Your task to perform on an android device: Is it going to rain today? Image 0: 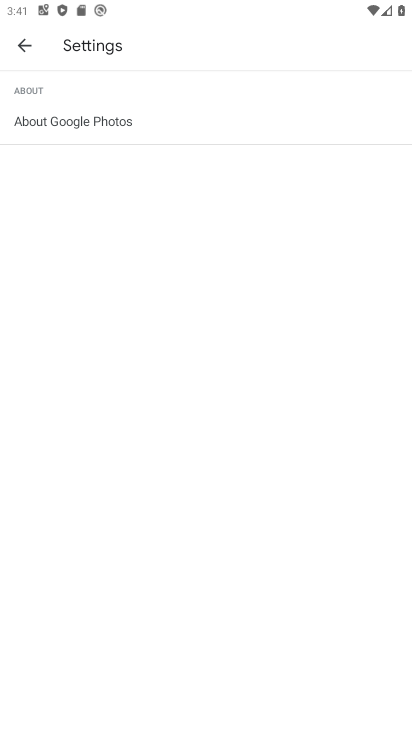
Step 0: press home button
Your task to perform on an android device: Is it going to rain today? Image 1: 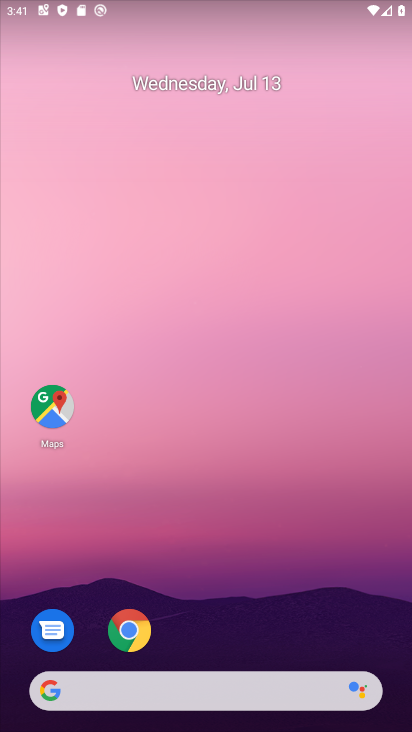
Step 1: drag from (314, 465) to (399, 12)
Your task to perform on an android device: Is it going to rain today? Image 2: 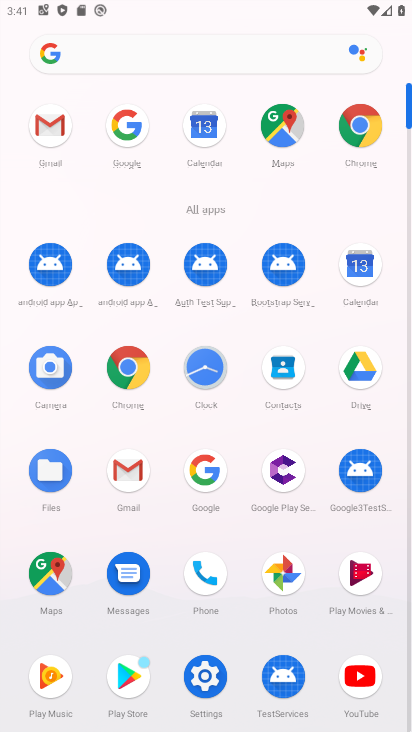
Step 2: drag from (386, 638) to (343, 228)
Your task to perform on an android device: Is it going to rain today? Image 3: 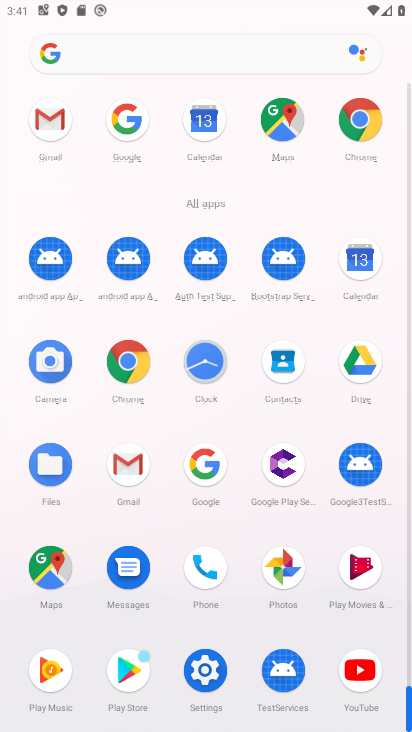
Step 3: click (201, 476)
Your task to perform on an android device: Is it going to rain today? Image 4: 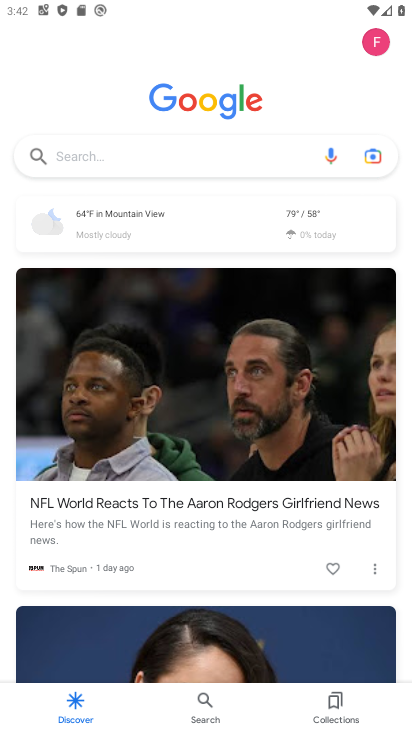
Step 4: click (139, 237)
Your task to perform on an android device: Is it going to rain today? Image 5: 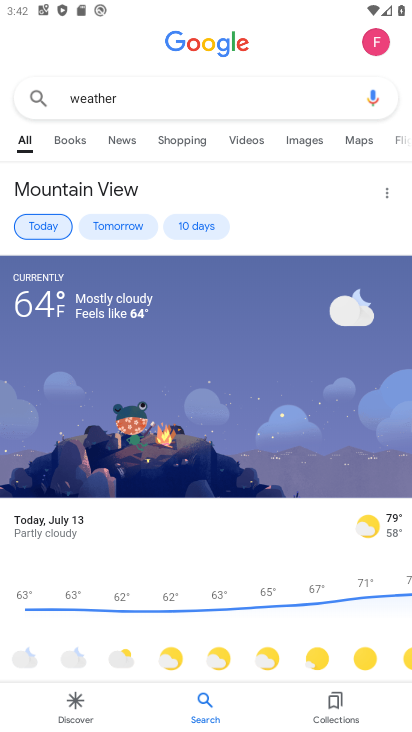
Step 5: task complete